Your task to perform on an android device: Open the calendar app, open the side menu, and click the "Day" option Image 0: 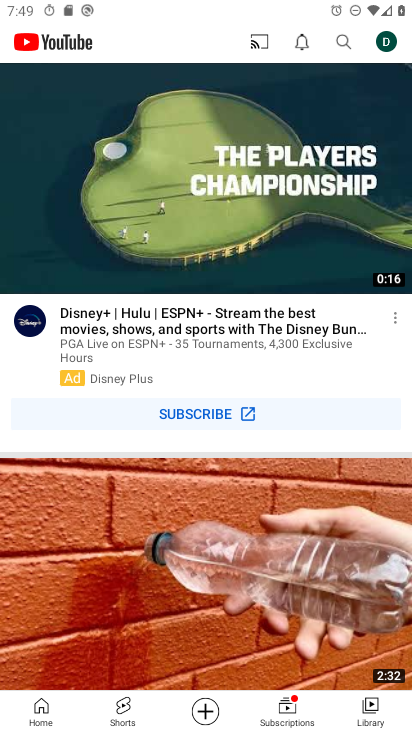
Step 0: press home button
Your task to perform on an android device: Open the calendar app, open the side menu, and click the "Day" option Image 1: 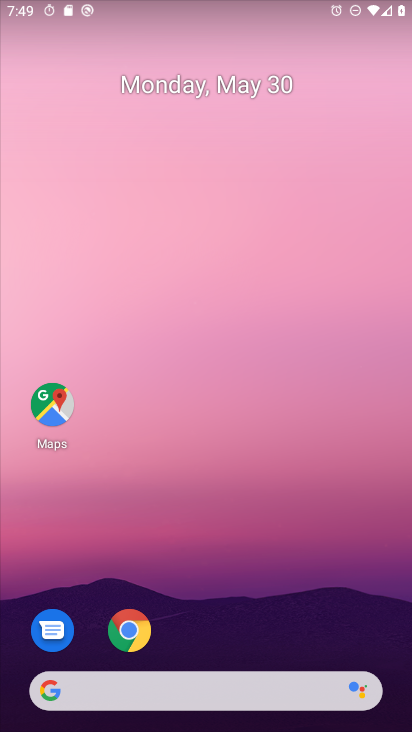
Step 1: drag from (303, 609) to (323, 225)
Your task to perform on an android device: Open the calendar app, open the side menu, and click the "Day" option Image 2: 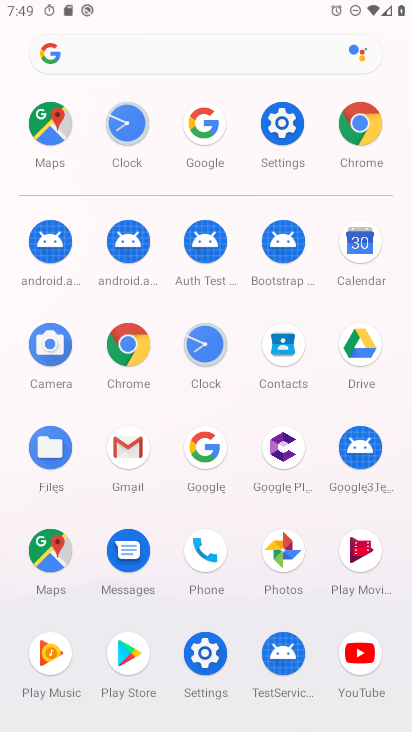
Step 2: click (367, 261)
Your task to perform on an android device: Open the calendar app, open the side menu, and click the "Day" option Image 3: 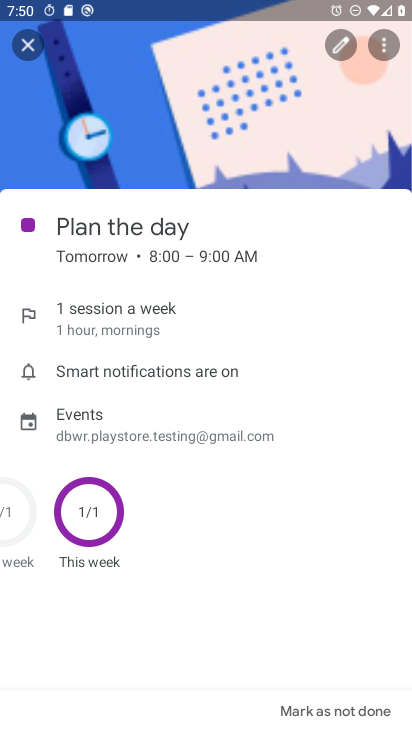
Step 3: press back button
Your task to perform on an android device: Open the calendar app, open the side menu, and click the "Day" option Image 4: 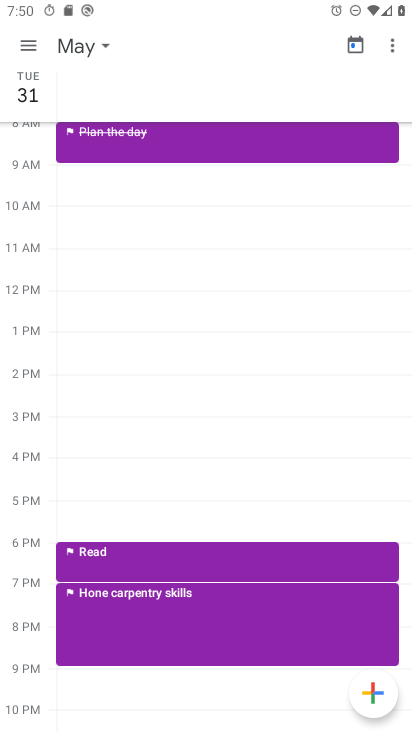
Step 4: click (23, 42)
Your task to perform on an android device: Open the calendar app, open the side menu, and click the "Day" option Image 5: 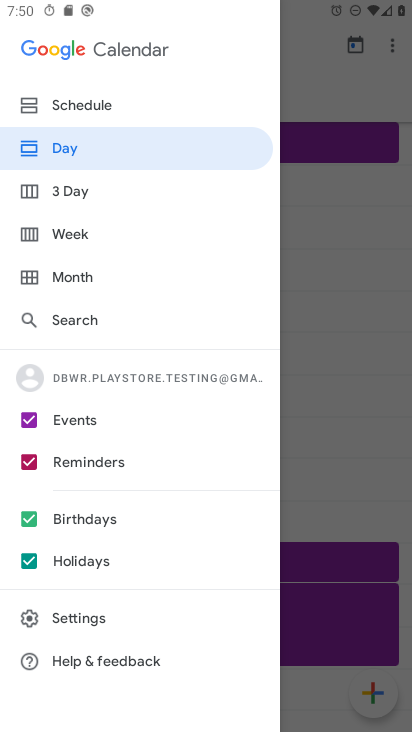
Step 5: click (137, 149)
Your task to perform on an android device: Open the calendar app, open the side menu, and click the "Day" option Image 6: 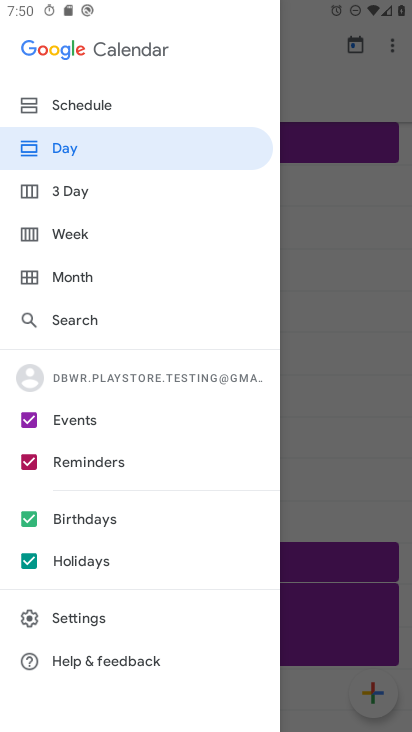
Step 6: click (137, 149)
Your task to perform on an android device: Open the calendar app, open the side menu, and click the "Day" option Image 7: 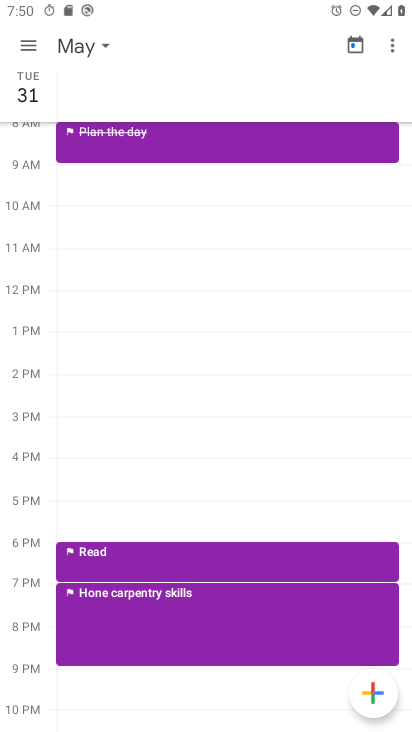
Step 7: task complete